Your task to perform on an android device: turn off wifi Image 0: 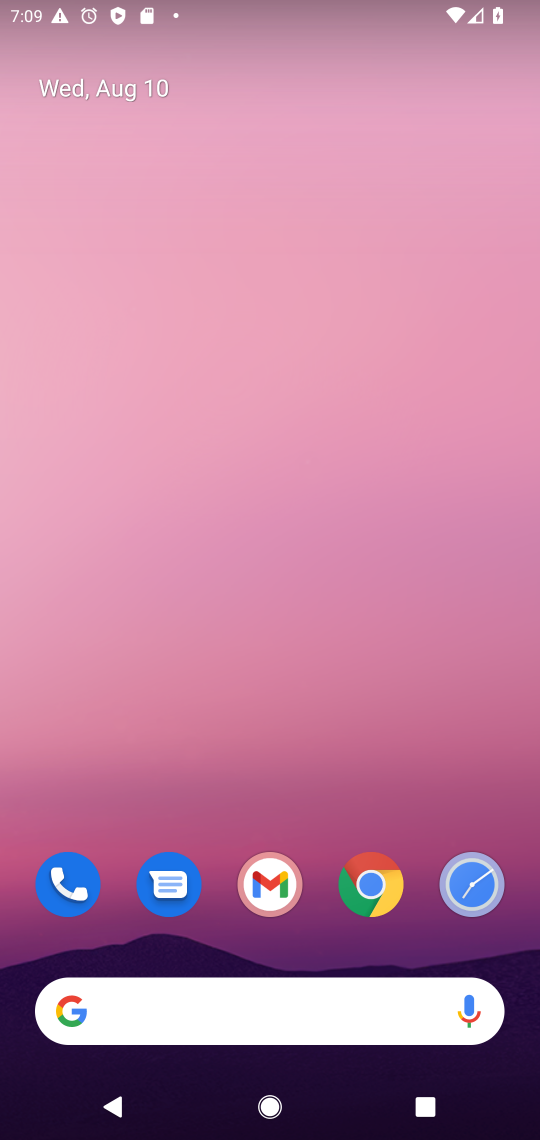
Step 0: drag from (73, 1088) to (244, 428)
Your task to perform on an android device: turn off wifi Image 1: 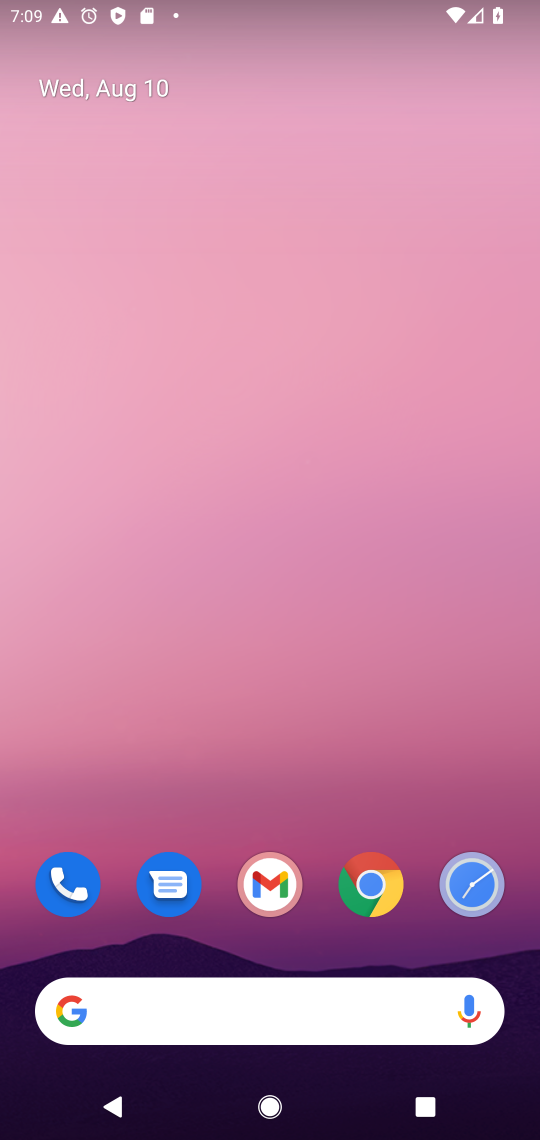
Step 1: drag from (29, 1105) to (329, 407)
Your task to perform on an android device: turn off wifi Image 2: 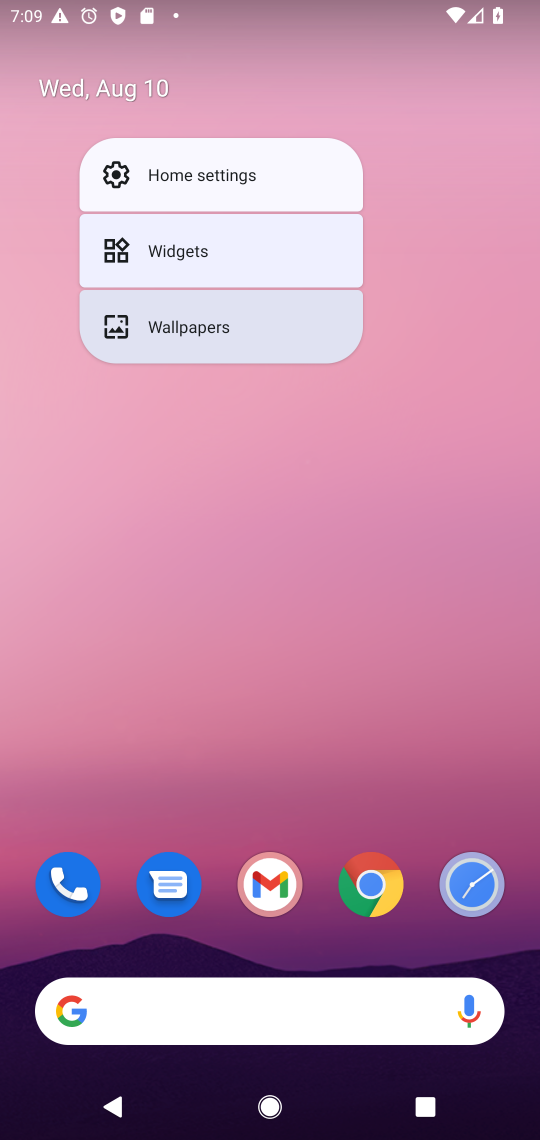
Step 2: drag from (10, 1076) to (298, 373)
Your task to perform on an android device: turn off wifi Image 3: 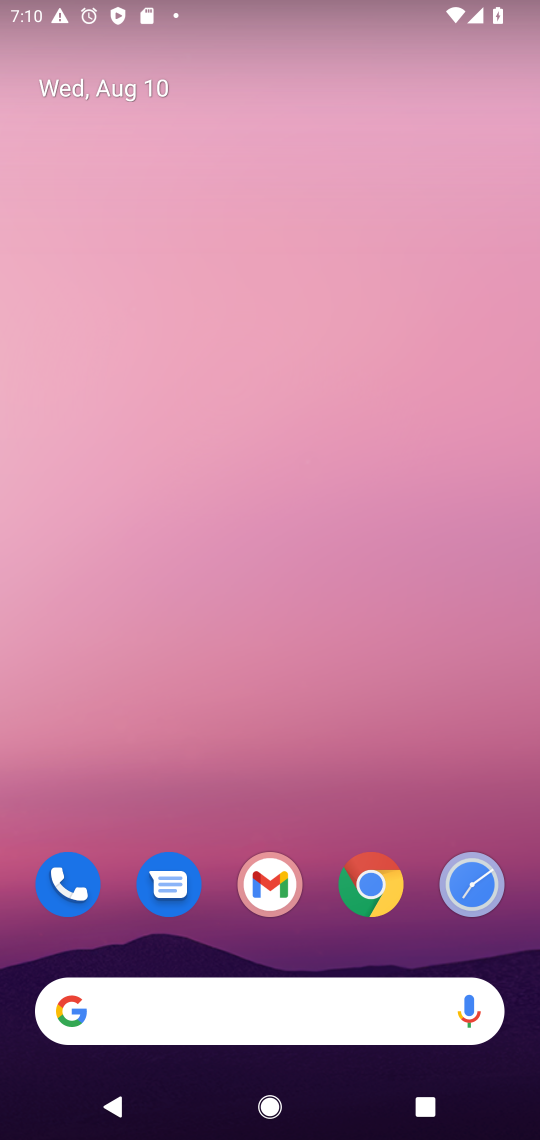
Step 3: drag from (49, 1067) to (336, 376)
Your task to perform on an android device: turn off wifi Image 4: 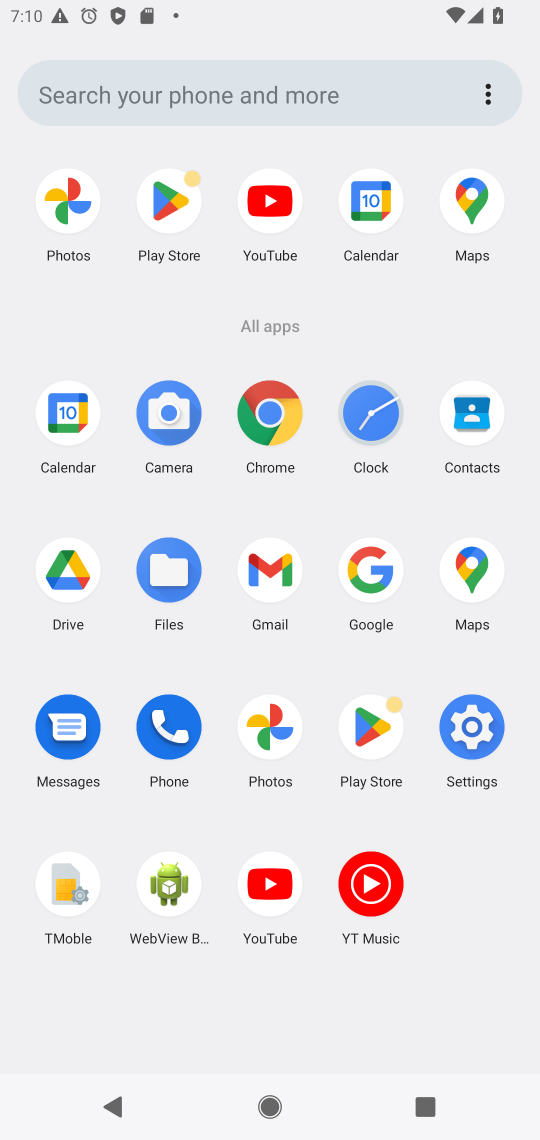
Step 4: click (483, 752)
Your task to perform on an android device: turn off wifi Image 5: 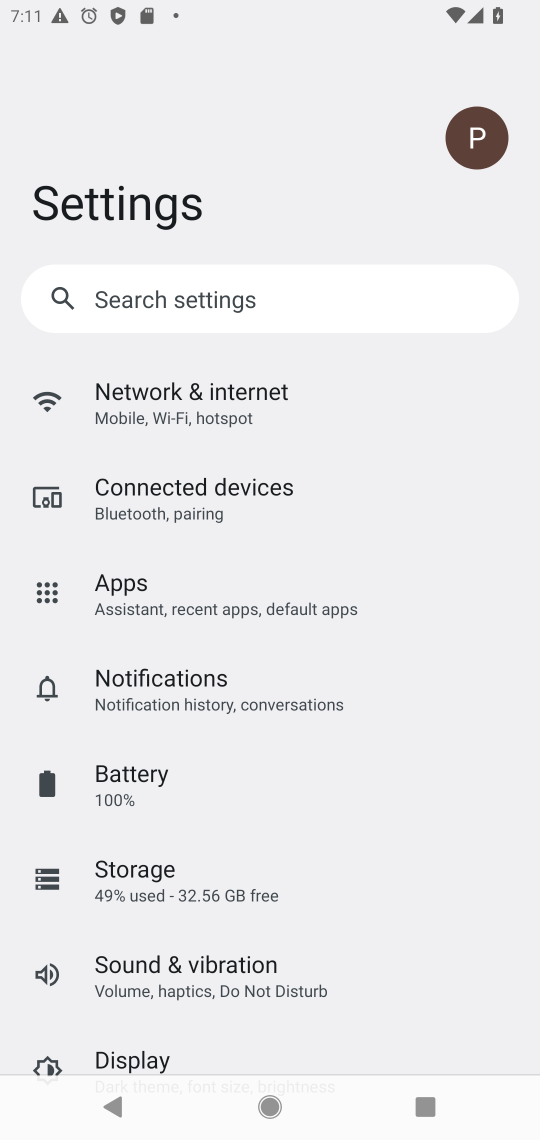
Step 5: click (251, 433)
Your task to perform on an android device: turn off wifi Image 6: 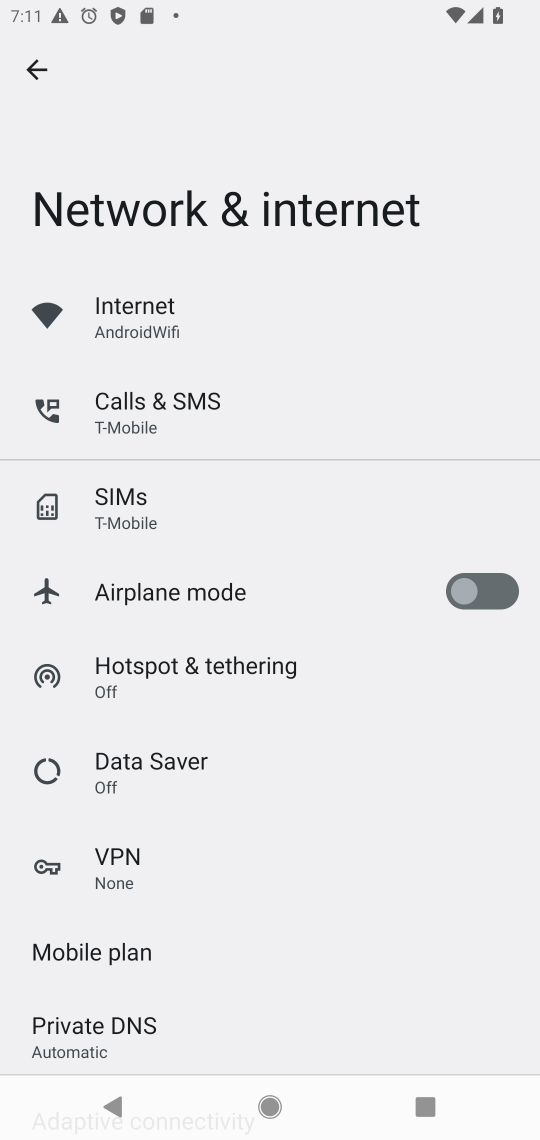
Step 6: click (196, 325)
Your task to perform on an android device: turn off wifi Image 7: 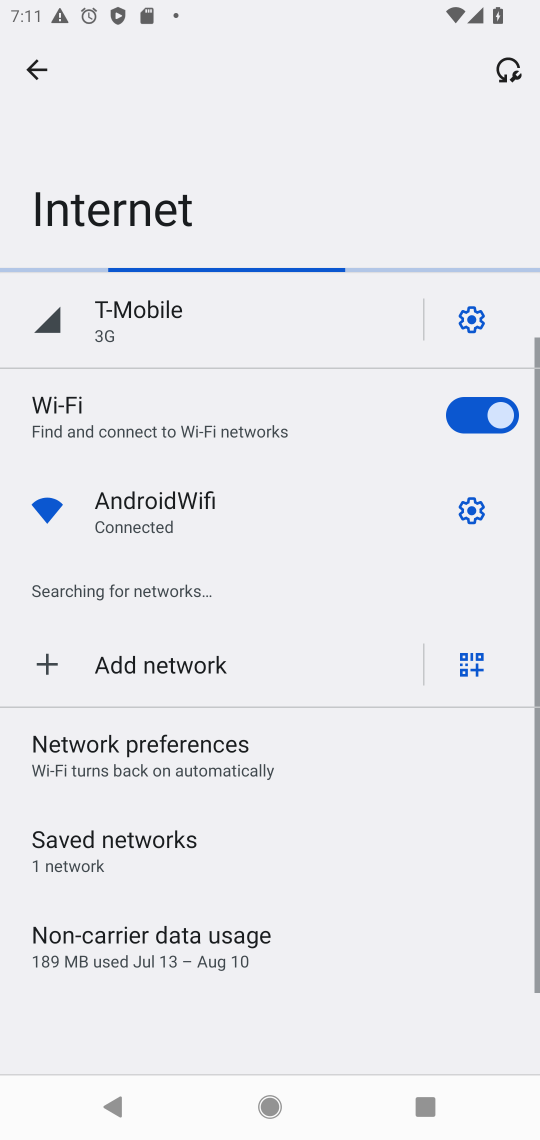
Step 7: task complete